Your task to perform on an android device: turn smart compose on in the gmail app Image 0: 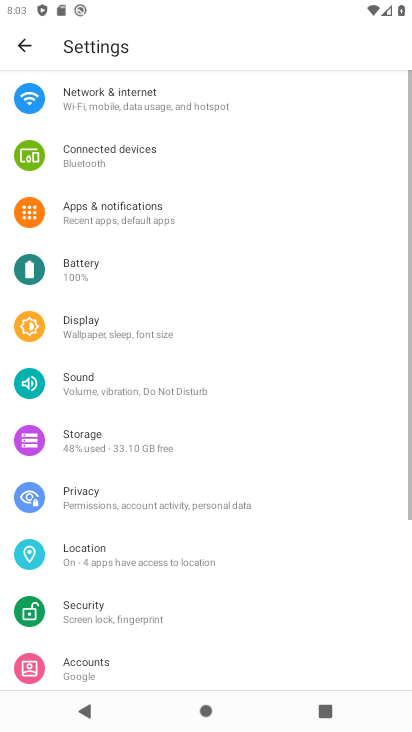
Step 0: press home button
Your task to perform on an android device: turn smart compose on in the gmail app Image 1: 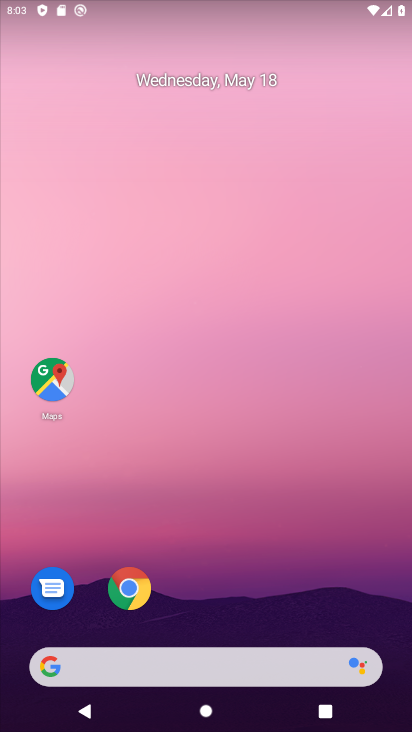
Step 1: drag from (350, 608) to (326, 15)
Your task to perform on an android device: turn smart compose on in the gmail app Image 2: 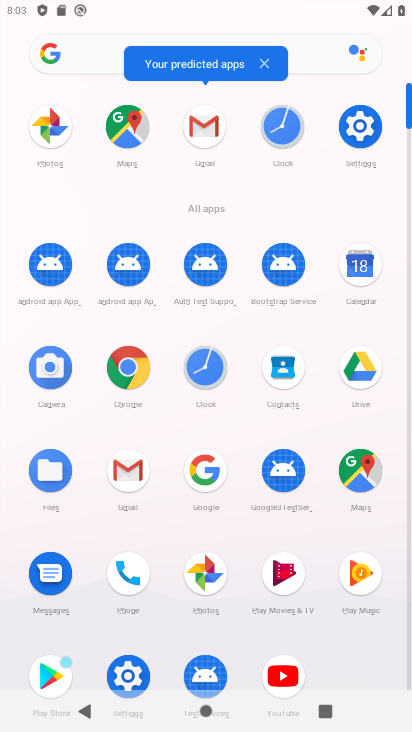
Step 2: click (196, 136)
Your task to perform on an android device: turn smart compose on in the gmail app Image 3: 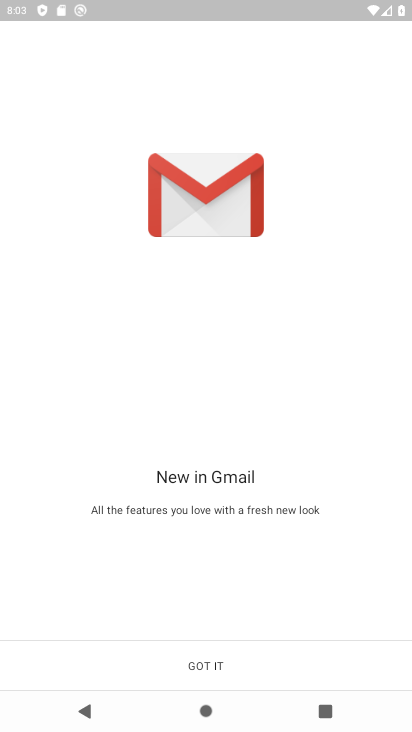
Step 3: click (213, 664)
Your task to perform on an android device: turn smart compose on in the gmail app Image 4: 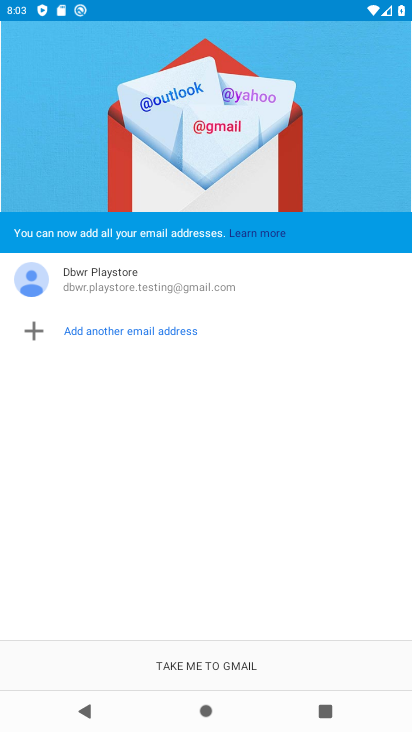
Step 4: click (213, 664)
Your task to perform on an android device: turn smart compose on in the gmail app Image 5: 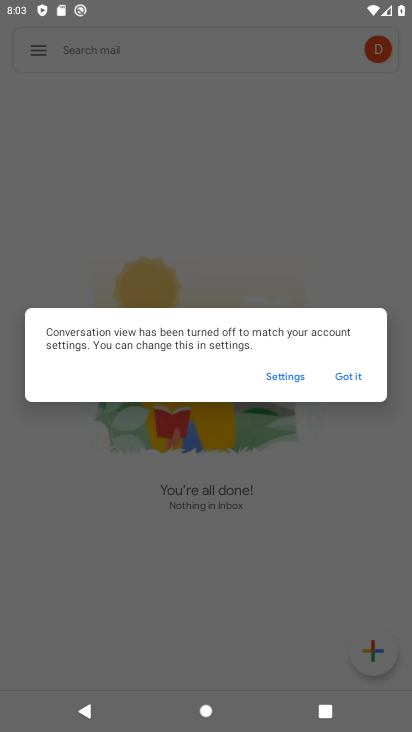
Step 5: click (349, 374)
Your task to perform on an android device: turn smart compose on in the gmail app Image 6: 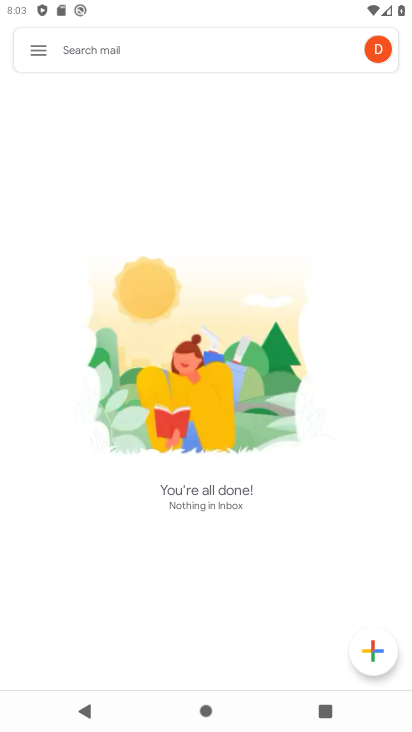
Step 6: click (36, 45)
Your task to perform on an android device: turn smart compose on in the gmail app Image 7: 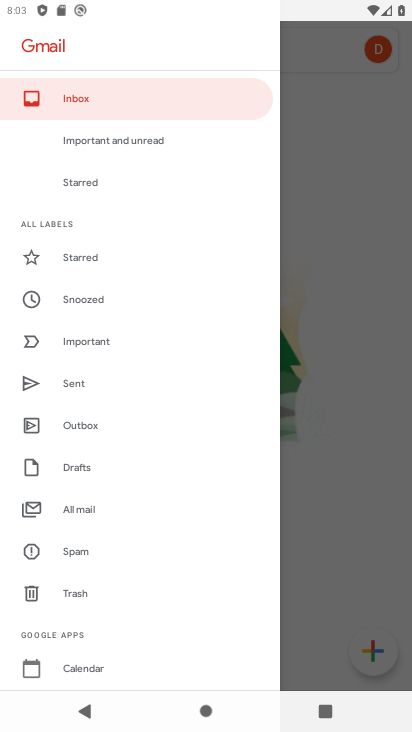
Step 7: drag from (135, 572) to (155, 264)
Your task to perform on an android device: turn smart compose on in the gmail app Image 8: 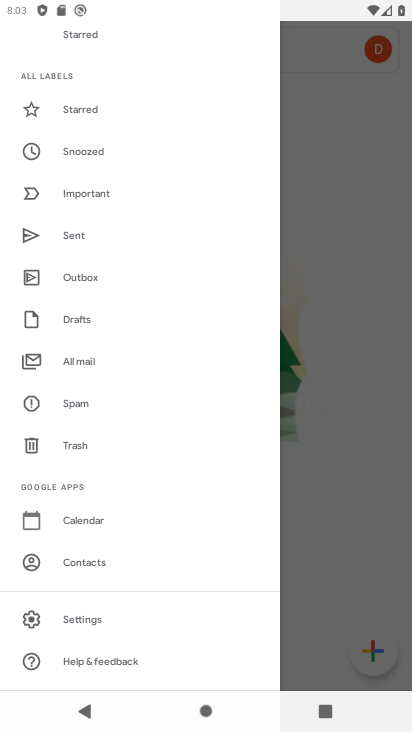
Step 8: click (102, 619)
Your task to perform on an android device: turn smart compose on in the gmail app Image 9: 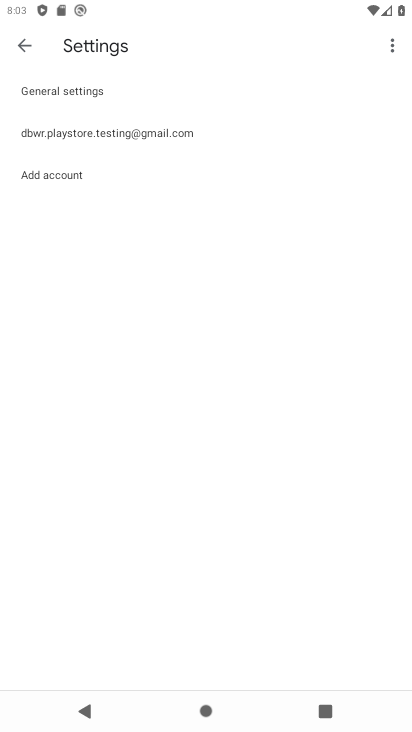
Step 9: click (70, 132)
Your task to perform on an android device: turn smart compose on in the gmail app Image 10: 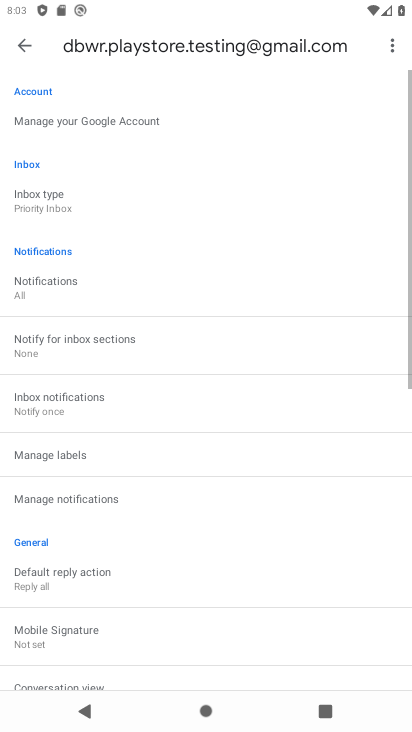
Step 10: task complete